Your task to perform on an android device: find snoozed emails in the gmail app Image 0: 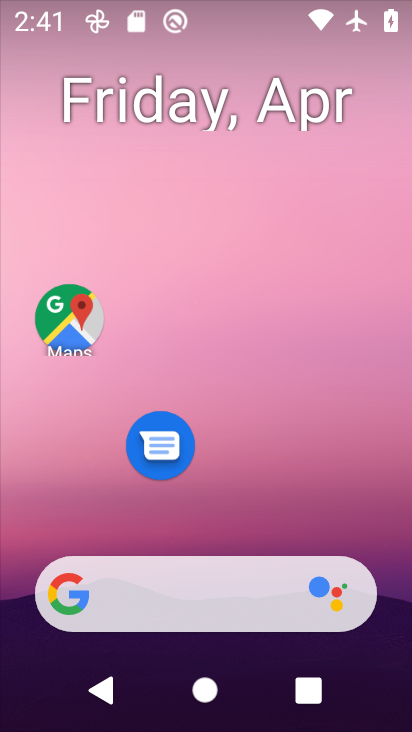
Step 0: drag from (270, 522) to (276, 196)
Your task to perform on an android device: find snoozed emails in the gmail app Image 1: 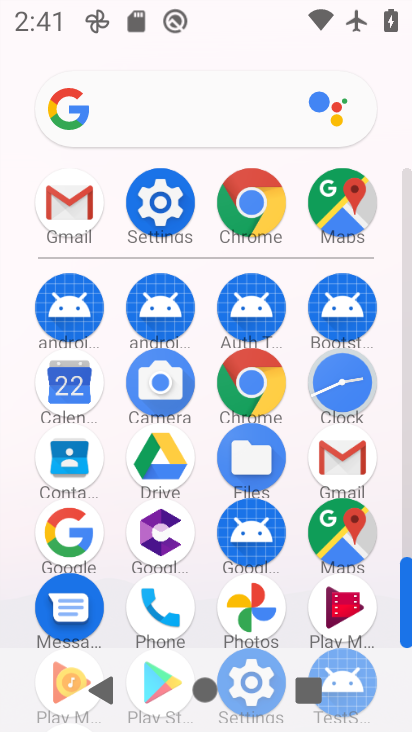
Step 1: click (339, 459)
Your task to perform on an android device: find snoozed emails in the gmail app Image 2: 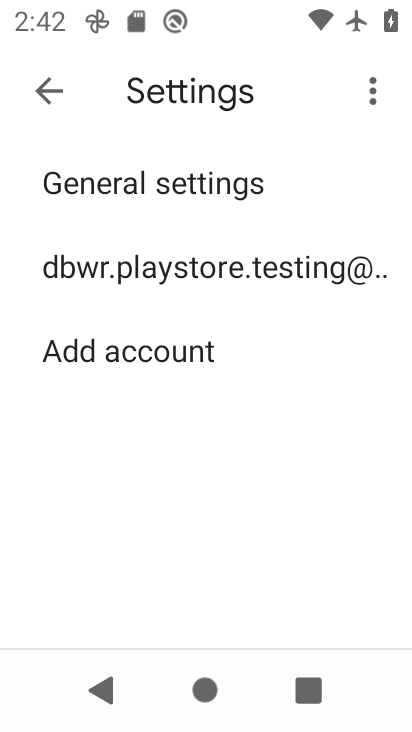
Step 2: click (42, 103)
Your task to perform on an android device: find snoozed emails in the gmail app Image 3: 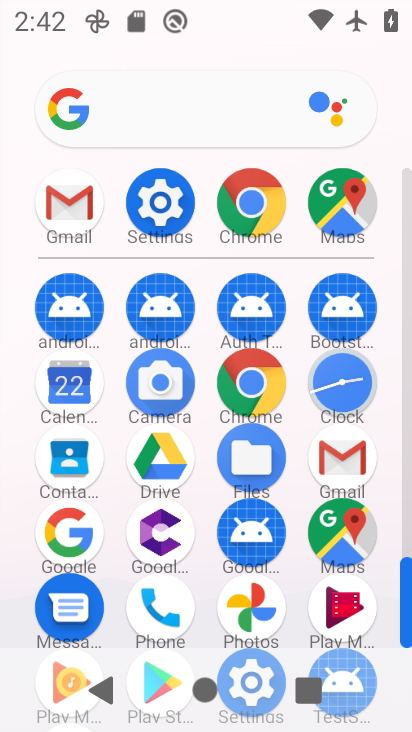
Step 3: click (90, 221)
Your task to perform on an android device: find snoozed emails in the gmail app Image 4: 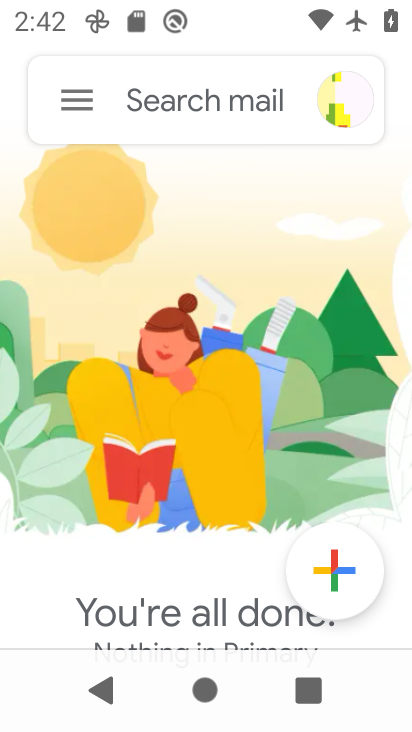
Step 4: click (73, 118)
Your task to perform on an android device: find snoozed emails in the gmail app Image 5: 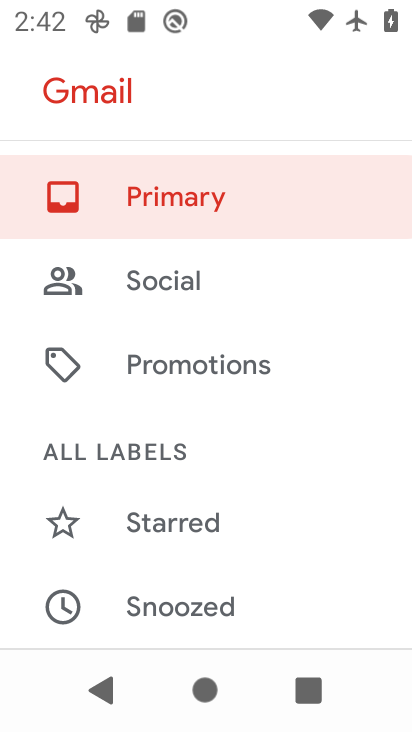
Step 5: click (133, 610)
Your task to perform on an android device: find snoozed emails in the gmail app Image 6: 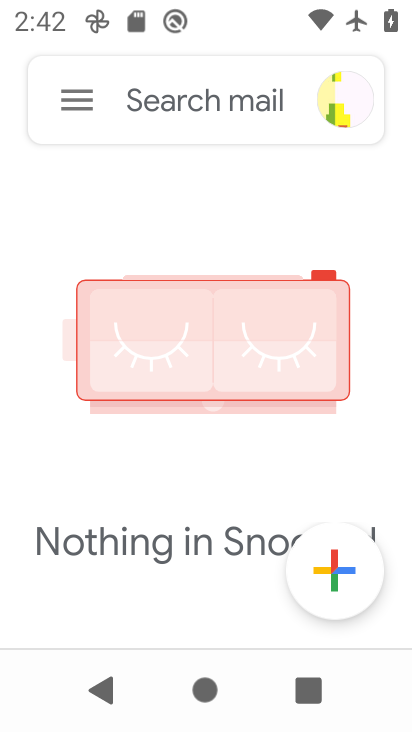
Step 6: task complete